Your task to perform on an android device: change timer sound Image 0: 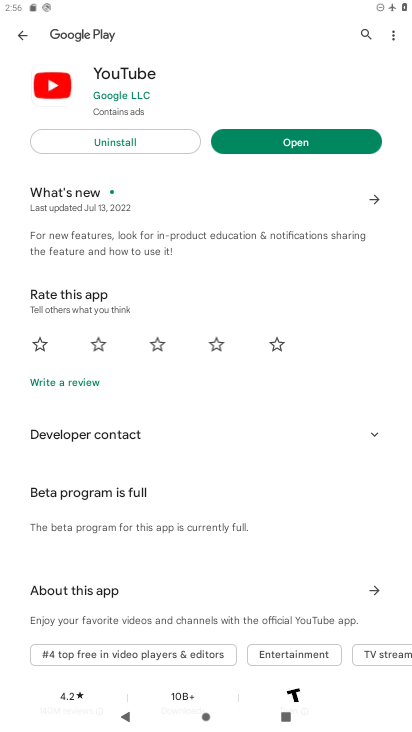
Step 0: press home button
Your task to perform on an android device: change timer sound Image 1: 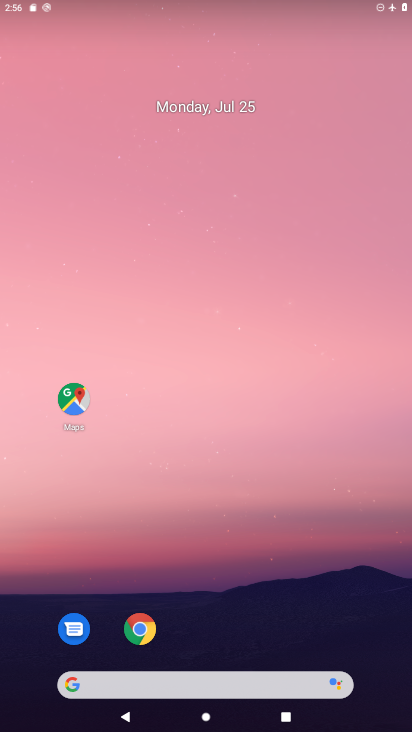
Step 1: drag from (302, 617) to (321, 7)
Your task to perform on an android device: change timer sound Image 2: 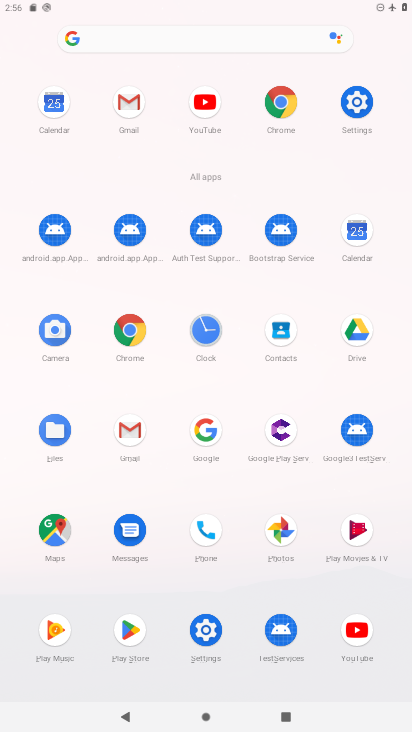
Step 2: click (209, 330)
Your task to perform on an android device: change timer sound Image 3: 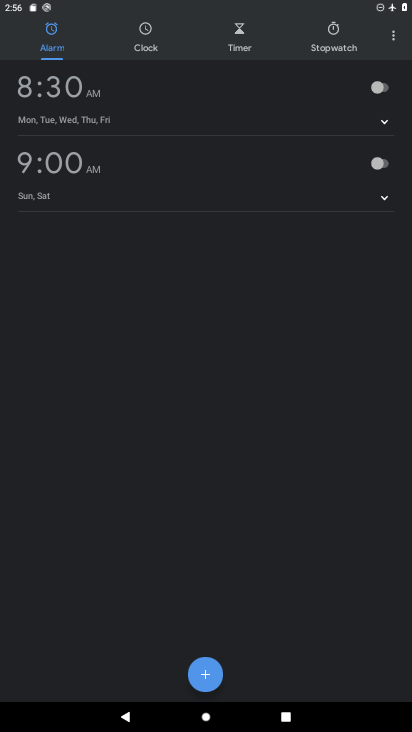
Step 3: click (391, 35)
Your task to perform on an android device: change timer sound Image 4: 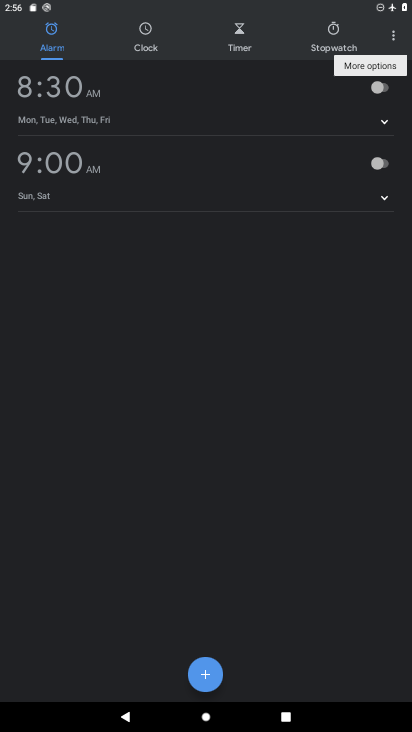
Step 4: click (391, 35)
Your task to perform on an android device: change timer sound Image 5: 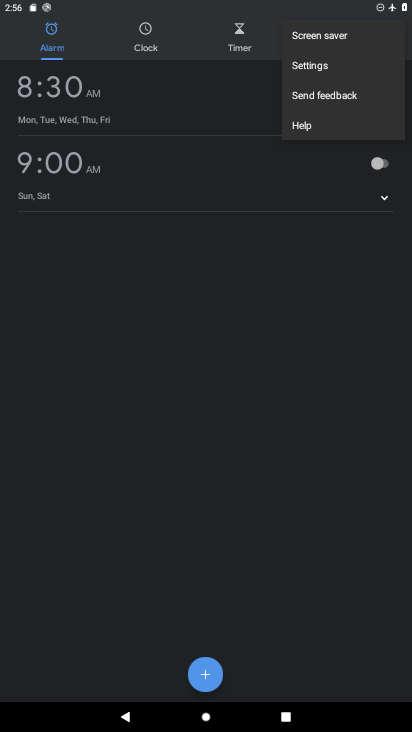
Step 5: click (335, 65)
Your task to perform on an android device: change timer sound Image 6: 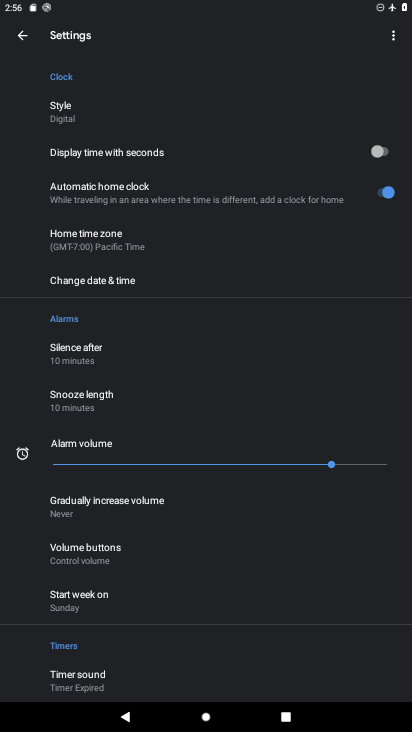
Step 6: drag from (165, 626) to (231, 259)
Your task to perform on an android device: change timer sound Image 7: 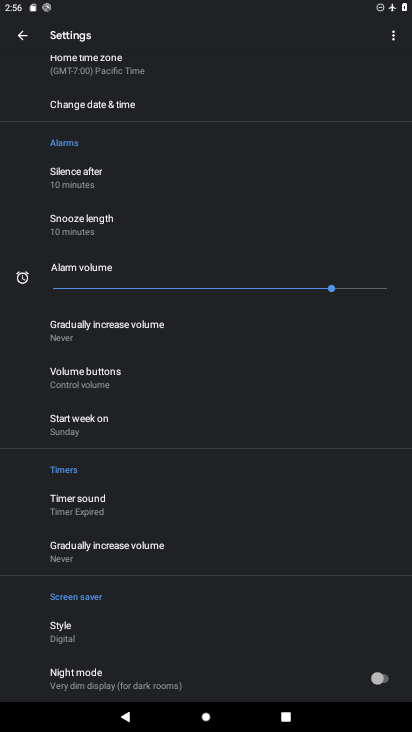
Step 7: click (58, 505)
Your task to perform on an android device: change timer sound Image 8: 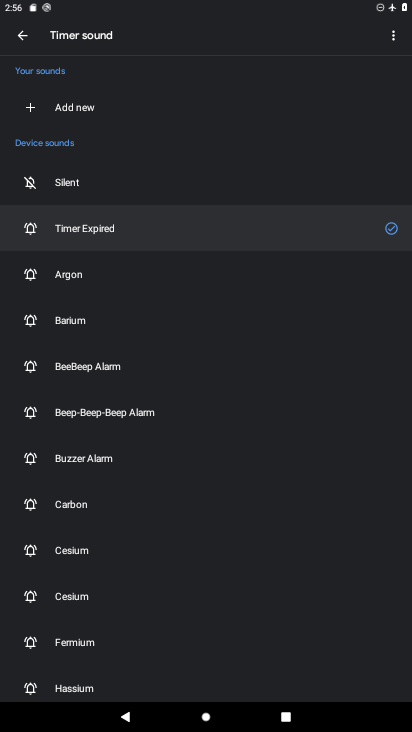
Step 8: click (324, 306)
Your task to perform on an android device: change timer sound Image 9: 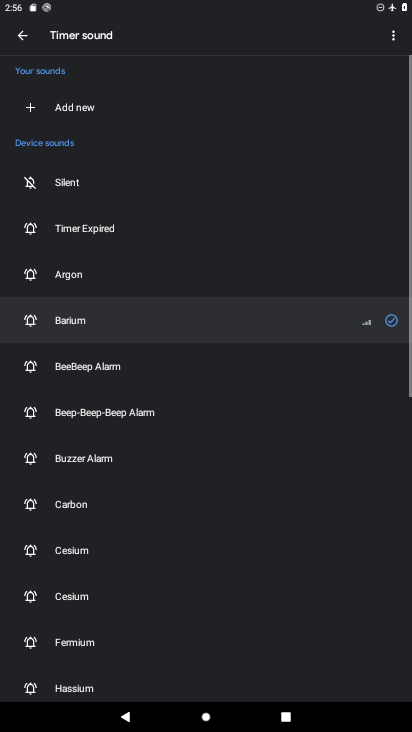
Step 9: click (386, 320)
Your task to perform on an android device: change timer sound Image 10: 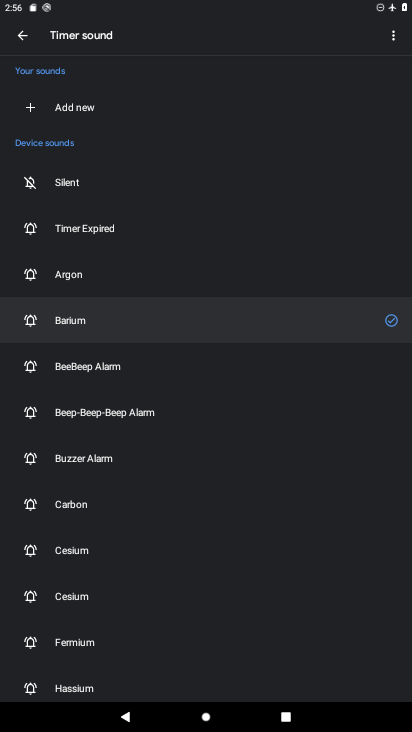
Step 10: task complete